Your task to perform on an android device: delete a single message in the gmail app Image 0: 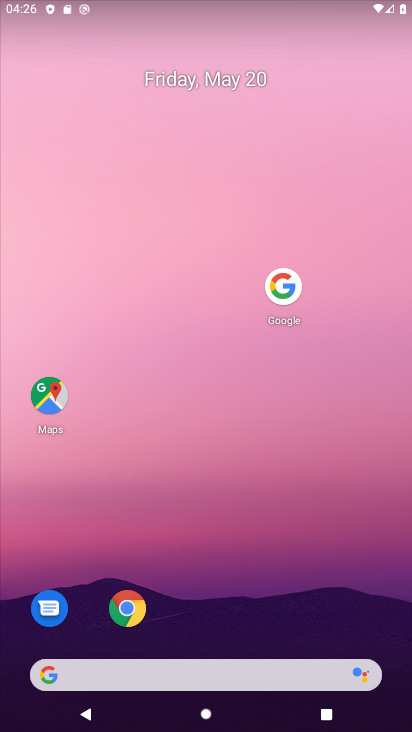
Step 0: drag from (248, 660) to (179, 46)
Your task to perform on an android device: delete a single message in the gmail app Image 1: 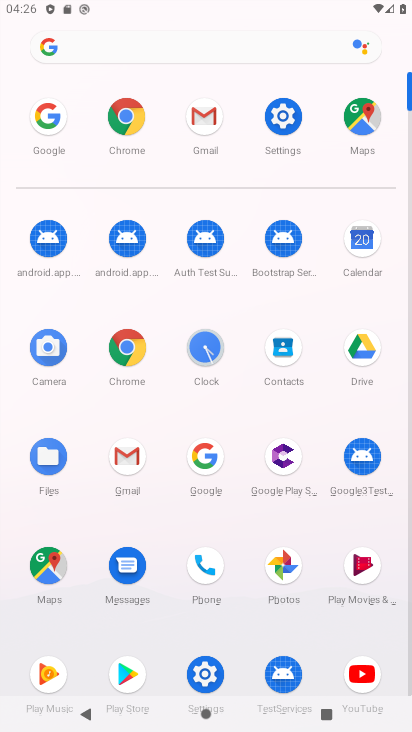
Step 1: click (122, 463)
Your task to perform on an android device: delete a single message in the gmail app Image 2: 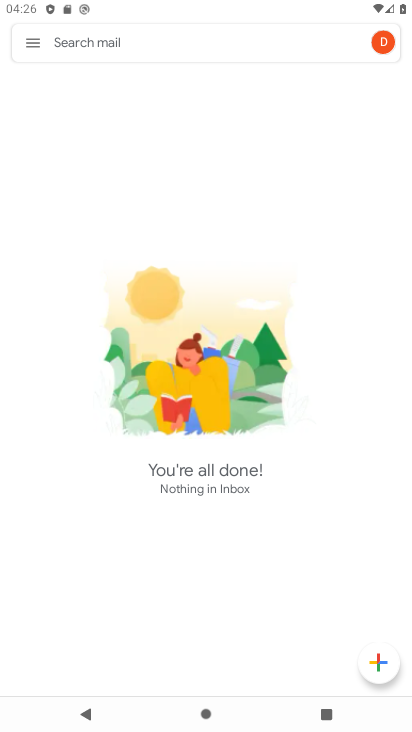
Step 2: task complete